Your task to perform on an android device: When is my next appointment? Image 0: 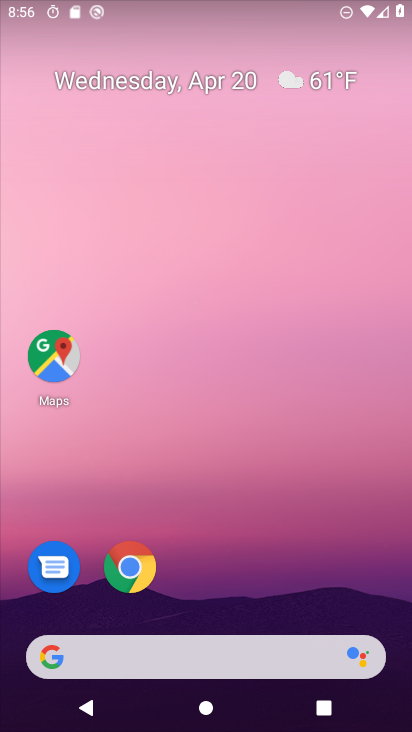
Step 0: drag from (365, 619) to (349, 3)
Your task to perform on an android device: When is my next appointment? Image 1: 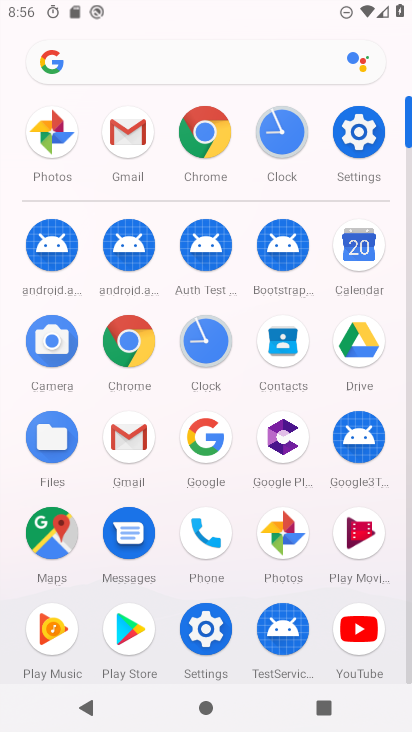
Step 1: click (352, 237)
Your task to perform on an android device: When is my next appointment? Image 2: 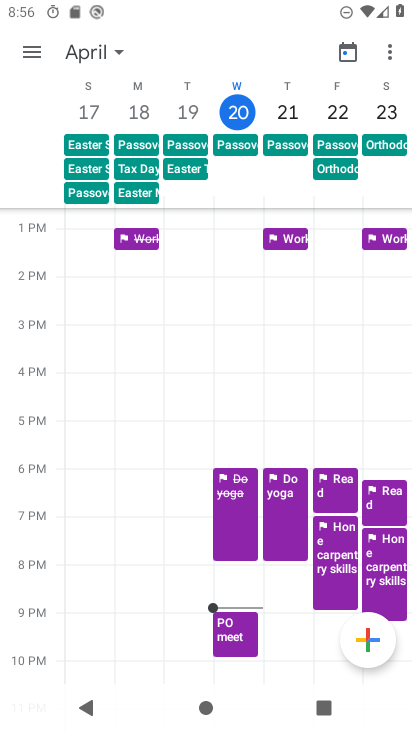
Step 2: click (117, 57)
Your task to perform on an android device: When is my next appointment? Image 3: 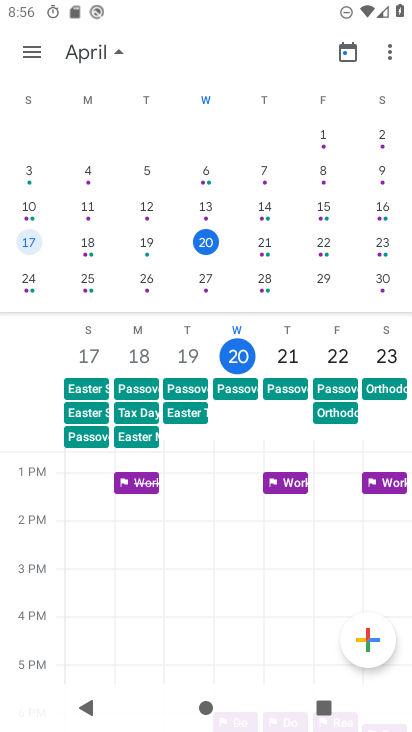
Step 3: click (29, 53)
Your task to perform on an android device: When is my next appointment? Image 4: 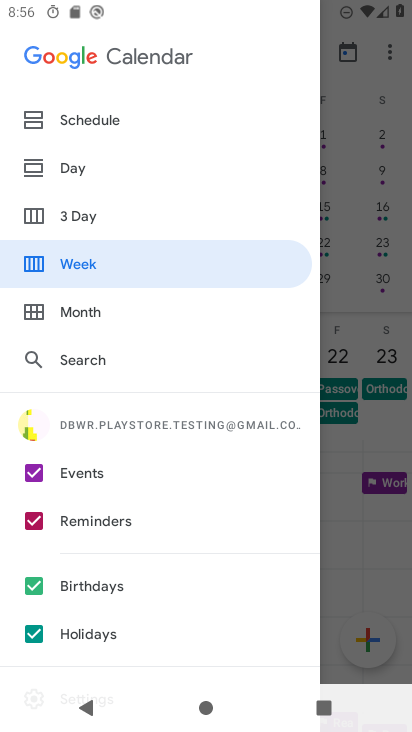
Step 4: click (23, 525)
Your task to perform on an android device: When is my next appointment? Image 5: 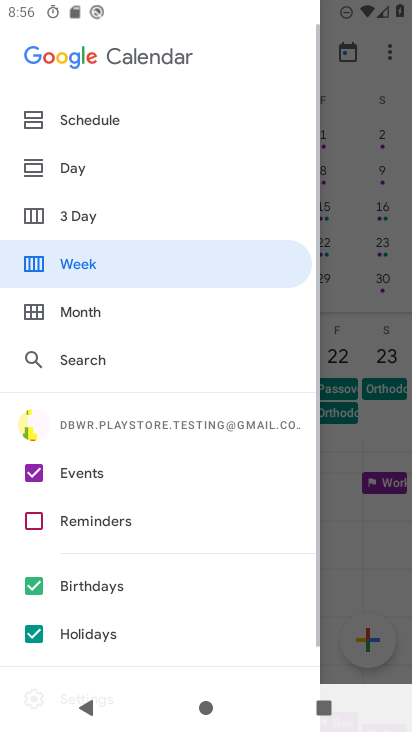
Step 5: click (28, 586)
Your task to perform on an android device: When is my next appointment? Image 6: 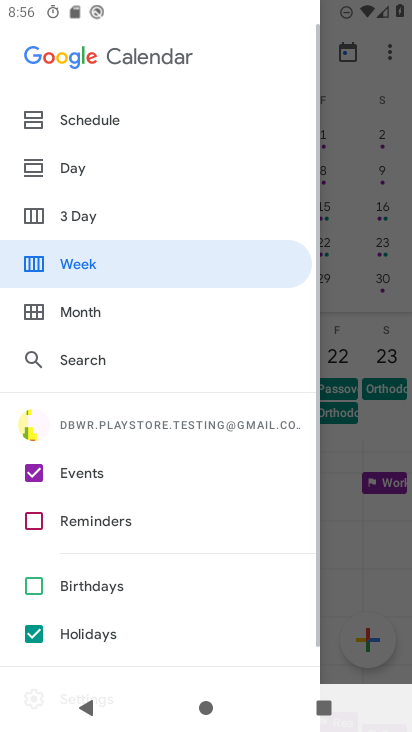
Step 6: click (30, 634)
Your task to perform on an android device: When is my next appointment? Image 7: 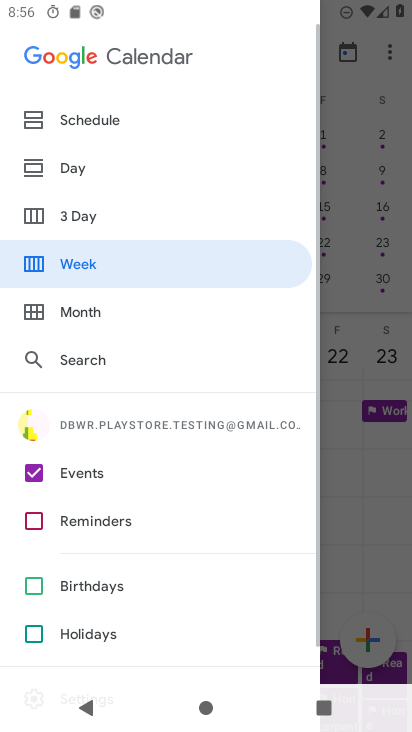
Step 7: click (63, 126)
Your task to perform on an android device: When is my next appointment? Image 8: 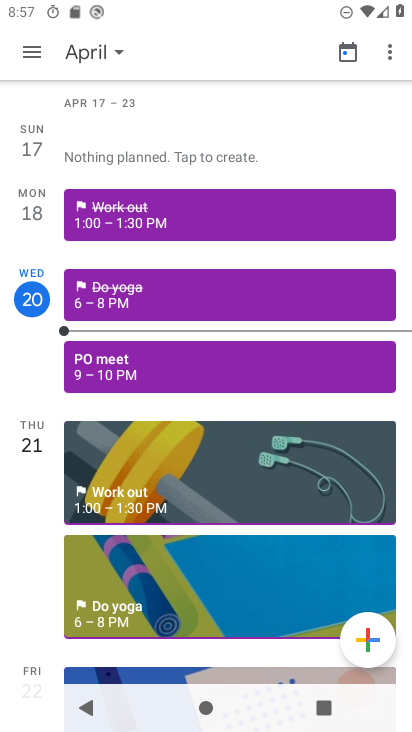
Step 8: drag from (130, 503) to (140, 409)
Your task to perform on an android device: When is my next appointment? Image 9: 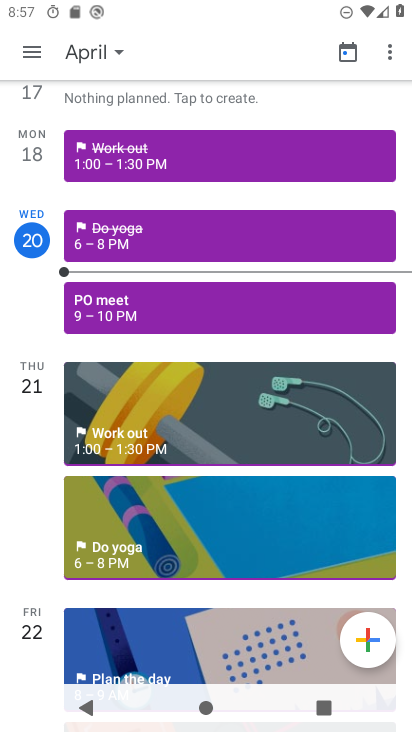
Step 9: click (119, 340)
Your task to perform on an android device: When is my next appointment? Image 10: 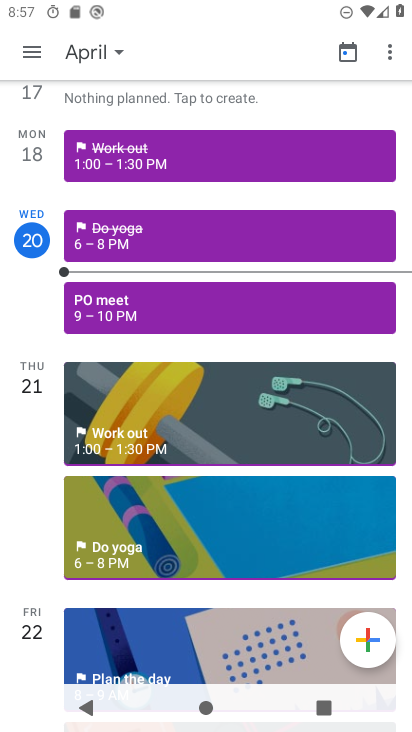
Step 10: click (124, 313)
Your task to perform on an android device: When is my next appointment? Image 11: 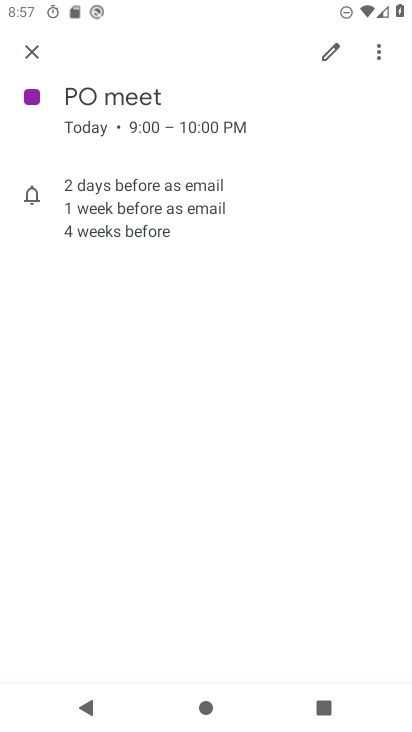
Step 11: task complete